Your task to perform on an android device: Show the shopping cart on ebay.com. Image 0: 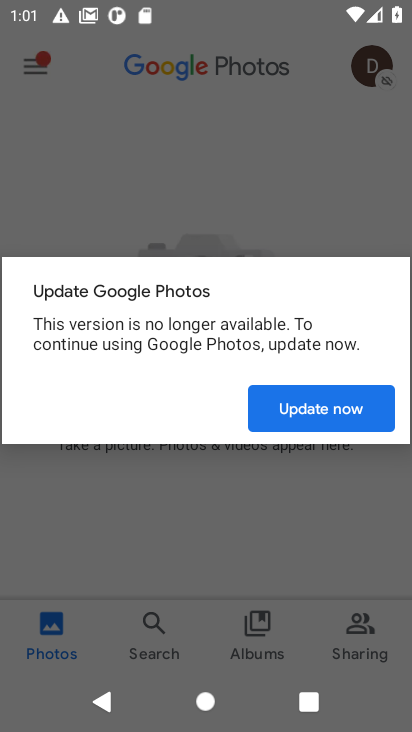
Step 0: press home button
Your task to perform on an android device: Show the shopping cart on ebay.com. Image 1: 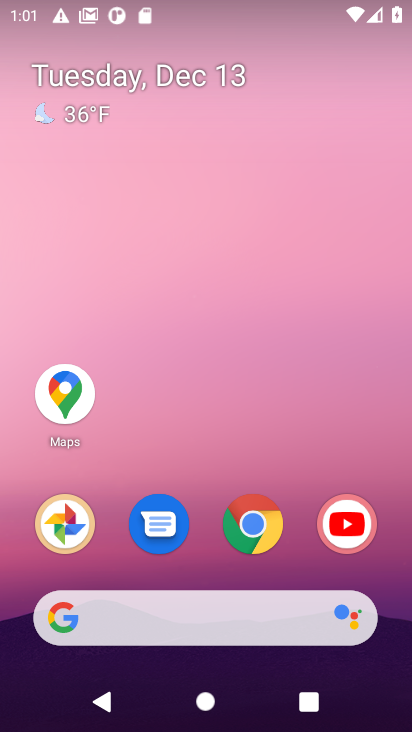
Step 1: click (251, 528)
Your task to perform on an android device: Show the shopping cart on ebay.com. Image 2: 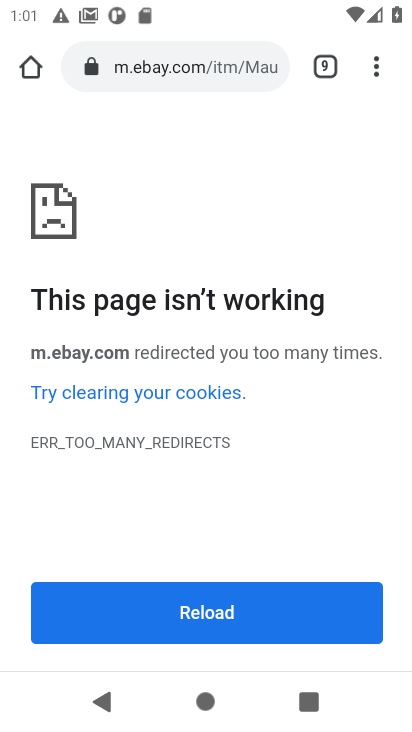
Step 2: press back button
Your task to perform on an android device: Show the shopping cart on ebay.com. Image 3: 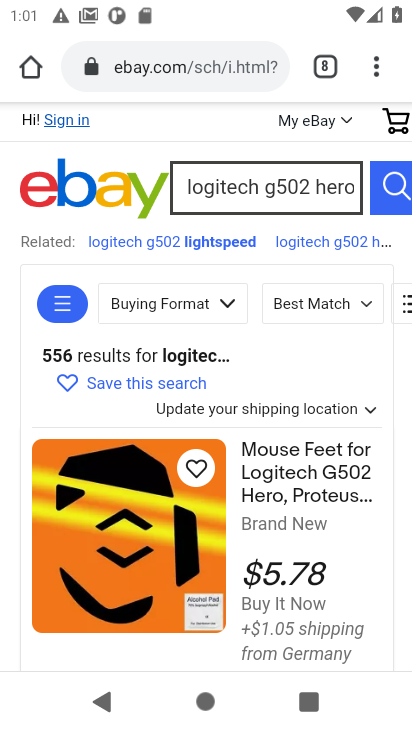
Step 3: click (399, 116)
Your task to perform on an android device: Show the shopping cart on ebay.com. Image 4: 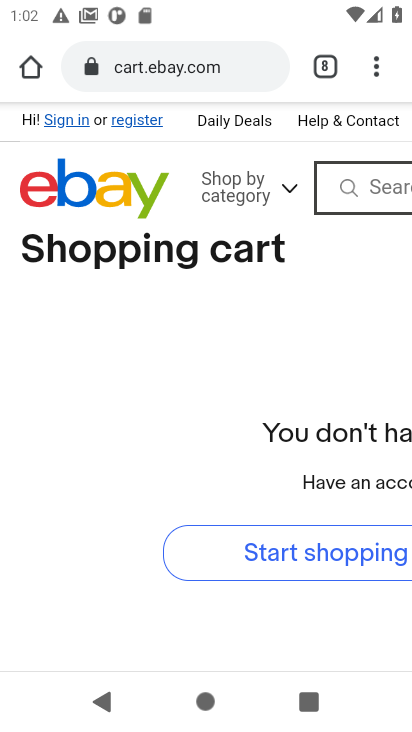
Step 4: task complete